Your task to perform on an android device: turn off airplane mode Image 0: 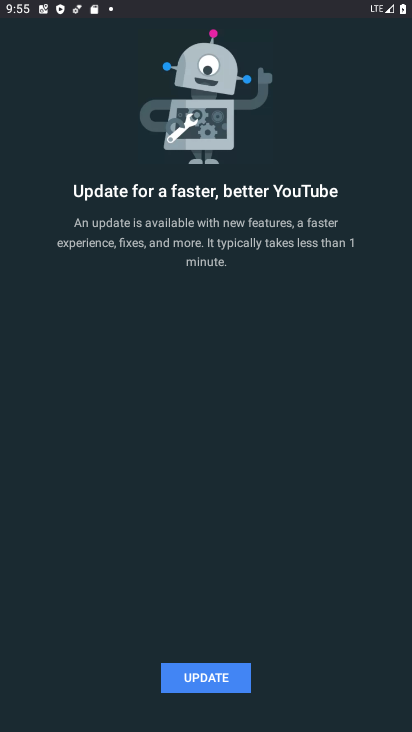
Step 0: press home button
Your task to perform on an android device: turn off airplane mode Image 1: 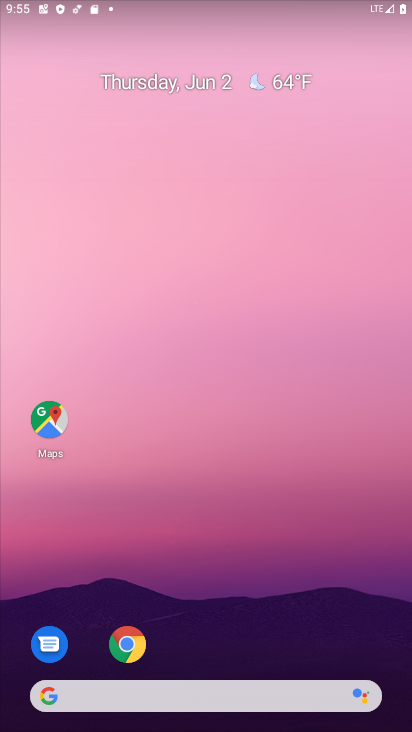
Step 1: task complete